Your task to perform on an android device: turn off data saver in the chrome app Image 0: 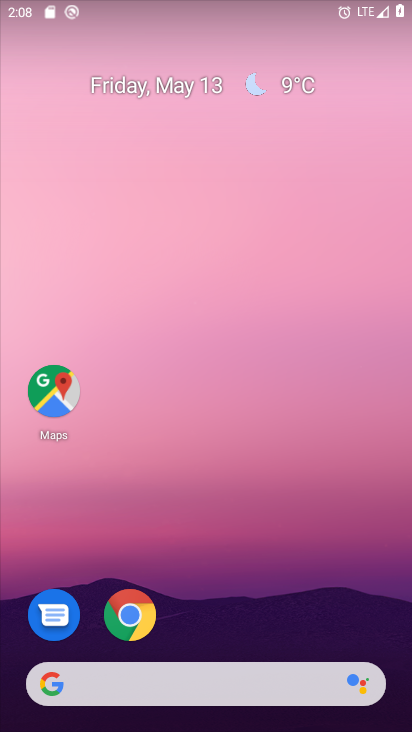
Step 0: click (140, 624)
Your task to perform on an android device: turn off data saver in the chrome app Image 1: 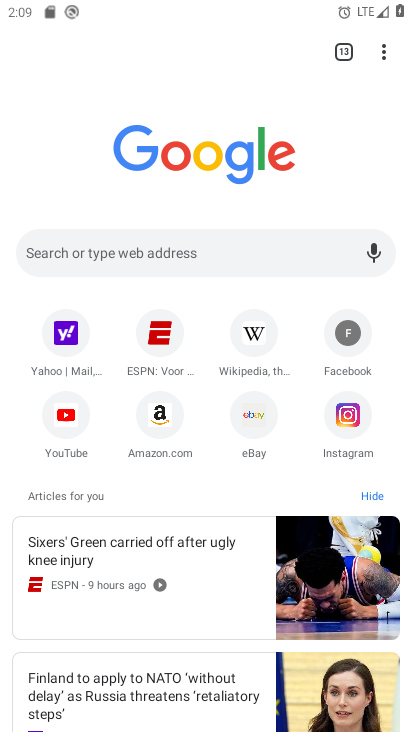
Step 1: click (382, 47)
Your task to perform on an android device: turn off data saver in the chrome app Image 2: 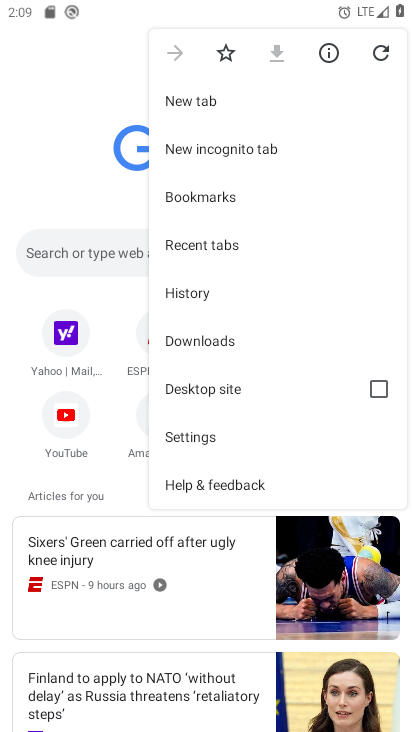
Step 2: click (192, 429)
Your task to perform on an android device: turn off data saver in the chrome app Image 3: 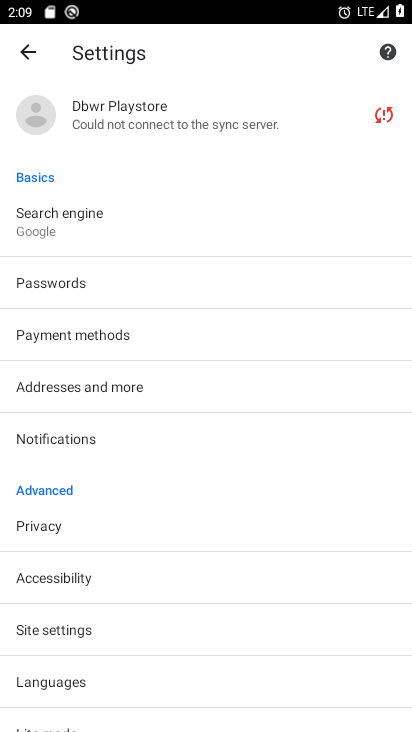
Step 3: drag from (173, 658) to (211, 431)
Your task to perform on an android device: turn off data saver in the chrome app Image 4: 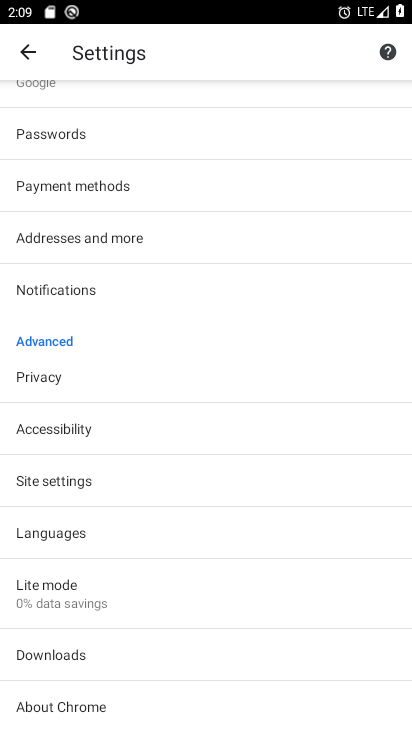
Step 4: click (192, 596)
Your task to perform on an android device: turn off data saver in the chrome app Image 5: 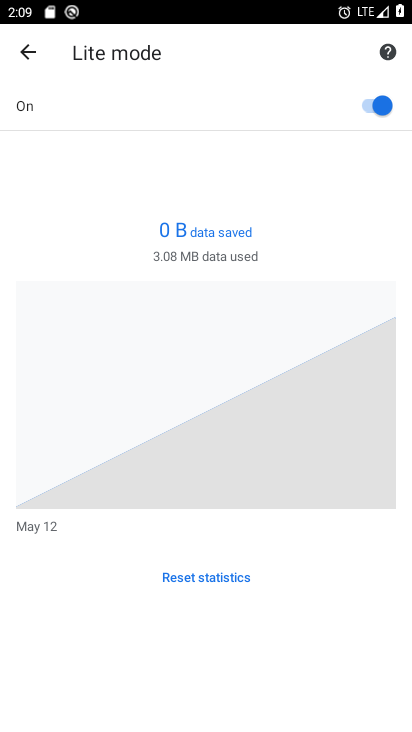
Step 5: click (377, 99)
Your task to perform on an android device: turn off data saver in the chrome app Image 6: 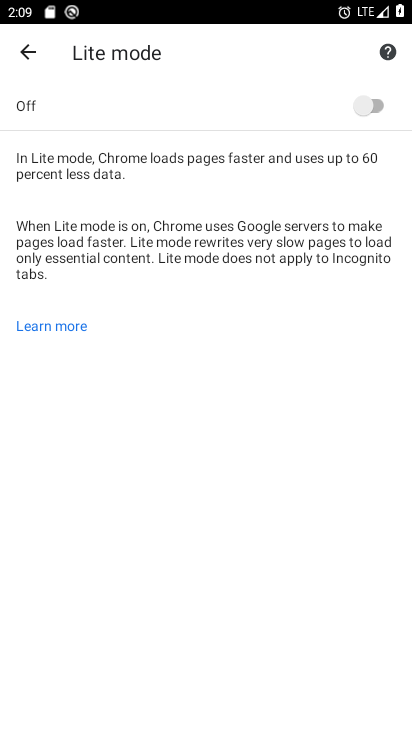
Step 6: task complete